Your task to perform on an android device: toggle pop-ups in chrome Image 0: 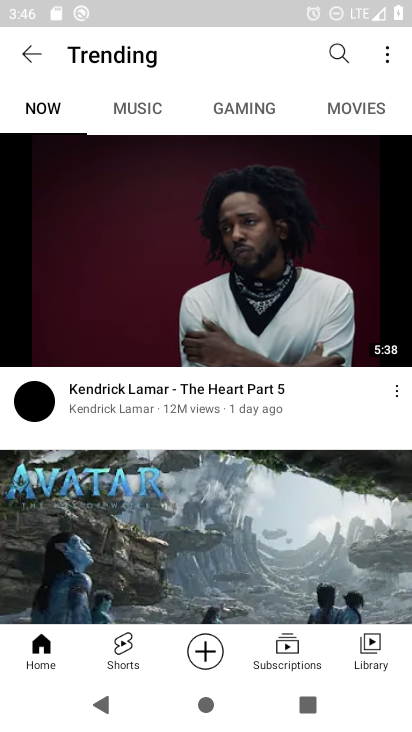
Step 0: press home button
Your task to perform on an android device: toggle pop-ups in chrome Image 1: 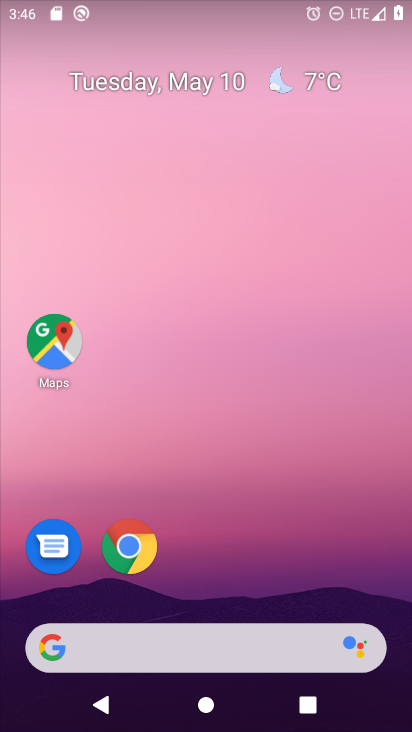
Step 1: click (135, 560)
Your task to perform on an android device: toggle pop-ups in chrome Image 2: 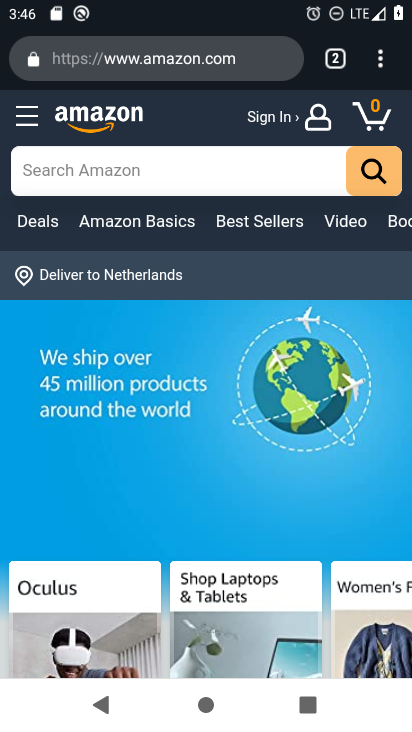
Step 2: click (387, 69)
Your task to perform on an android device: toggle pop-ups in chrome Image 3: 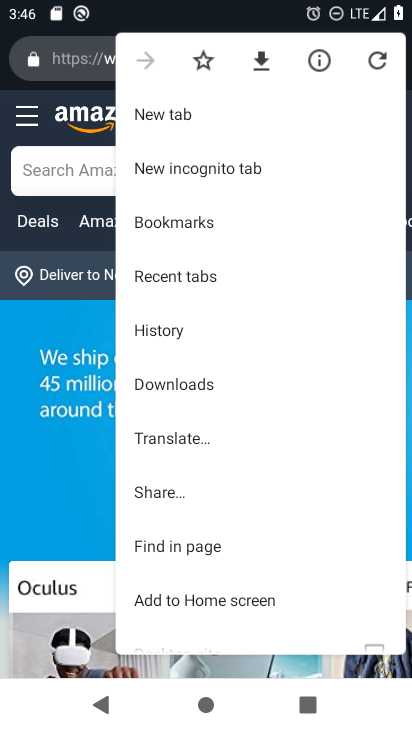
Step 3: drag from (187, 569) to (228, 369)
Your task to perform on an android device: toggle pop-ups in chrome Image 4: 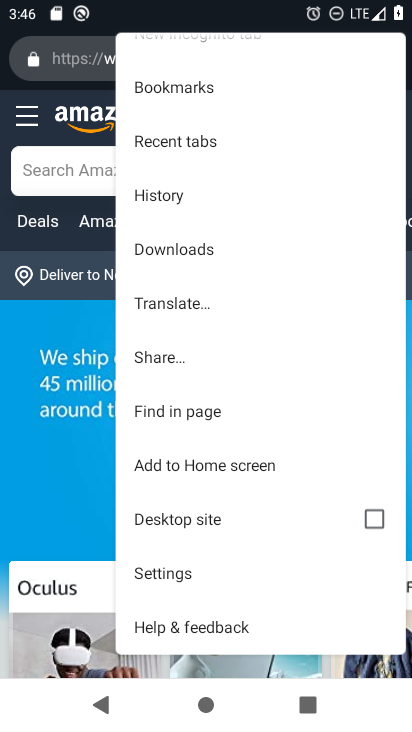
Step 4: click (176, 577)
Your task to perform on an android device: toggle pop-ups in chrome Image 5: 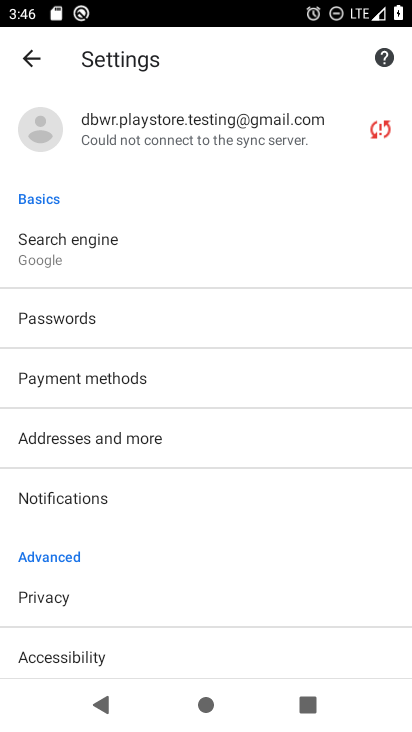
Step 5: drag from (92, 577) to (122, 333)
Your task to perform on an android device: toggle pop-ups in chrome Image 6: 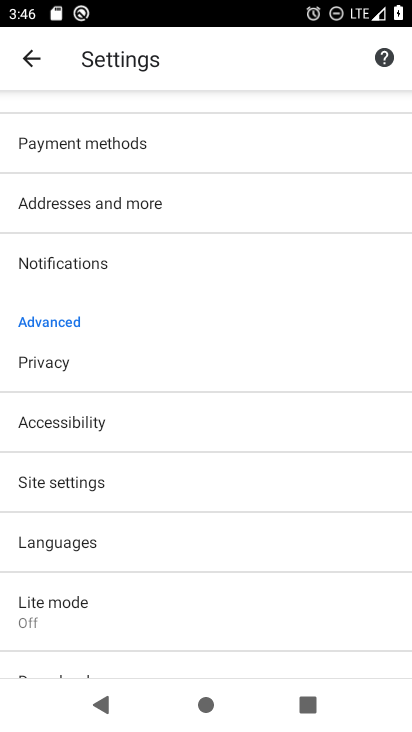
Step 6: click (72, 490)
Your task to perform on an android device: toggle pop-ups in chrome Image 7: 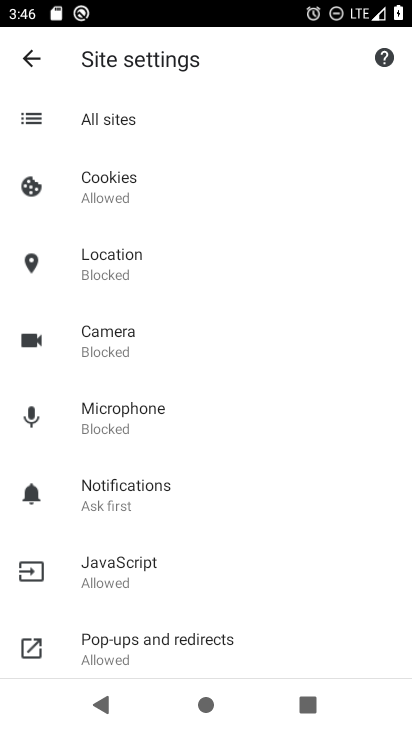
Step 7: drag from (138, 595) to (177, 399)
Your task to perform on an android device: toggle pop-ups in chrome Image 8: 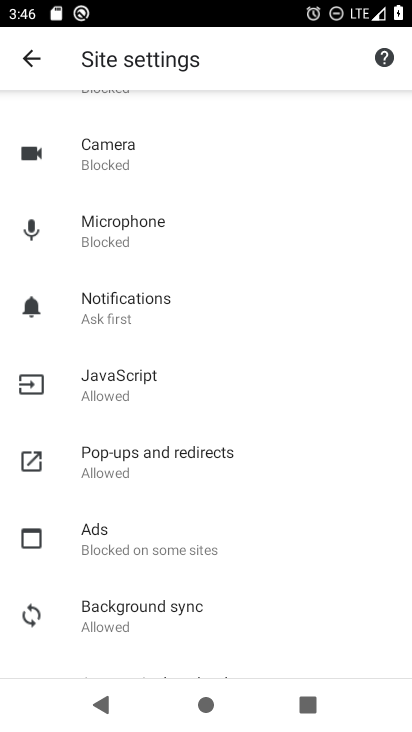
Step 8: click (134, 462)
Your task to perform on an android device: toggle pop-ups in chrome Image 9: 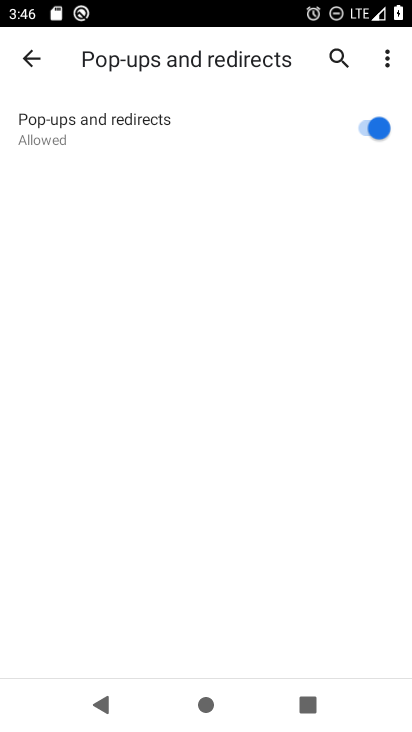
Step 9: click (346, 129)
Your task to perform on an android device: toggle pop-ups in chrome Image 10: 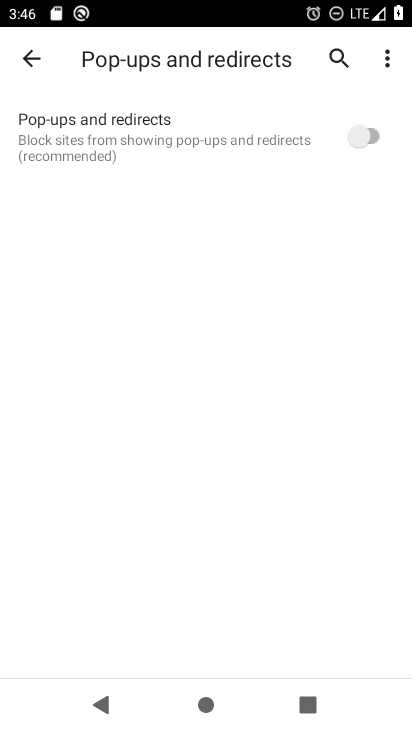
Step 10: task complete